Your task to perform on an android device: search for starred emails in the gmail app Image 0: 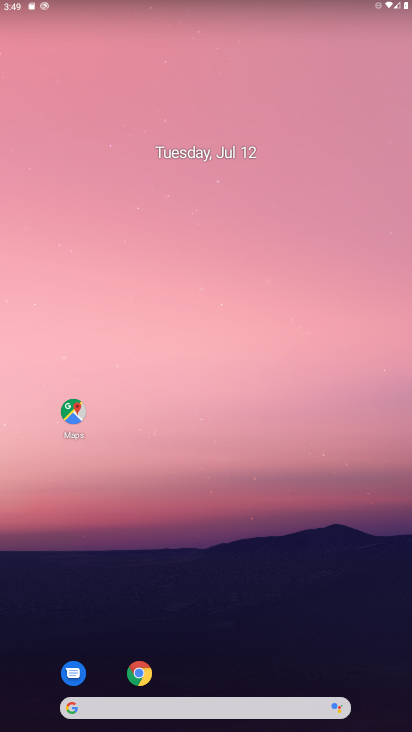
Step 0: drag from (172, 707) to (233, 56)
Your task to perform on an android device: search for starred emails in the gmail app Image 1: 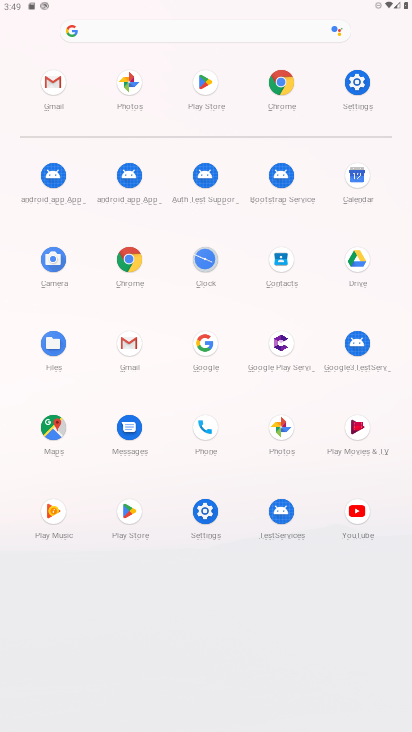
Step 1: click (128, 343)
Your task to perform on an android device: search for starred emails in the gmail app Image 2: 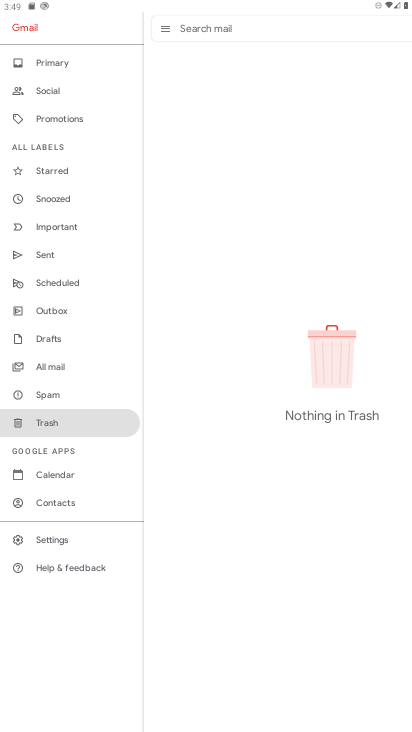
Step 2: click (53, 68)
Your task to perform on an android device: search for starred emails in the gmail app Image 3: 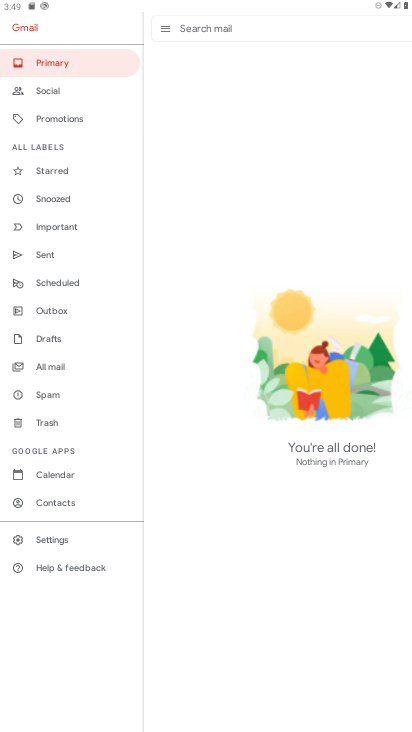
Step 3: click (52, 92)
Your task to perform on an android device: search for starred emails in the gmail app Image 4: 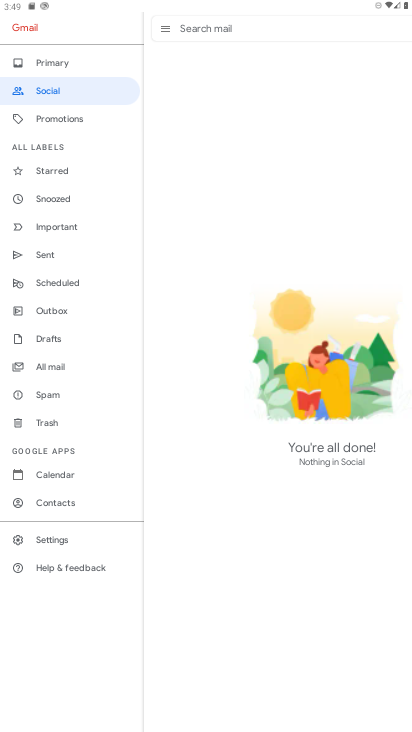
Step 4: click (60, 122)
Your task to perform on an android device: search for starred emails in the gmail app Image 5: 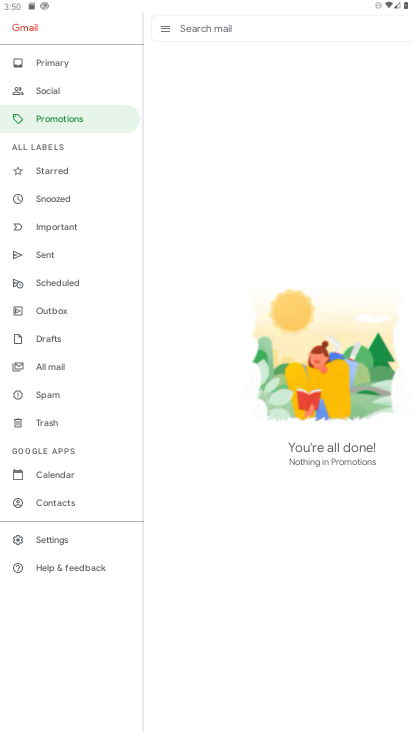
Step 5: click (46, 177)
Your task to perform on an android device: search for starred emails in the gmail app Image 6: 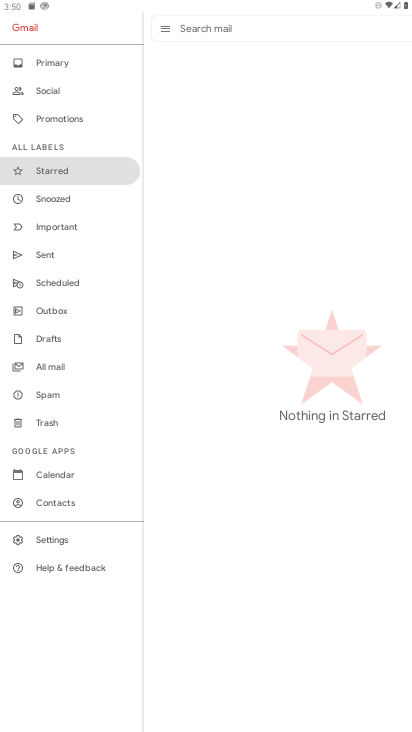
Step 6: click (49, 203)
Your task to perform on an android device: search for starred emails in the gmail app Image 7: 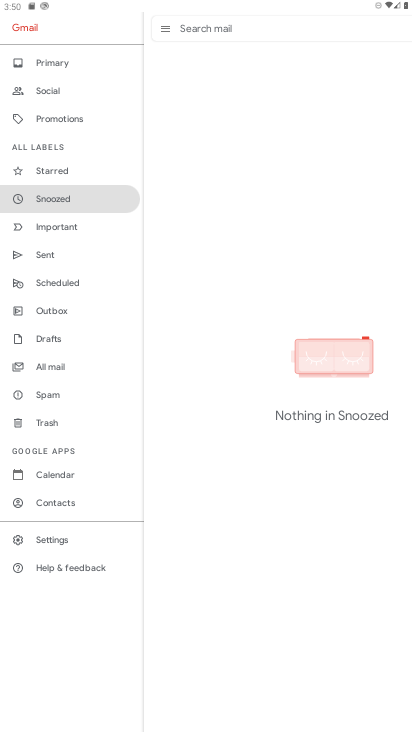
Step 7: click (67, 231)
Your task to perform on an android device: search for starred emails in the gmail app Image 8: 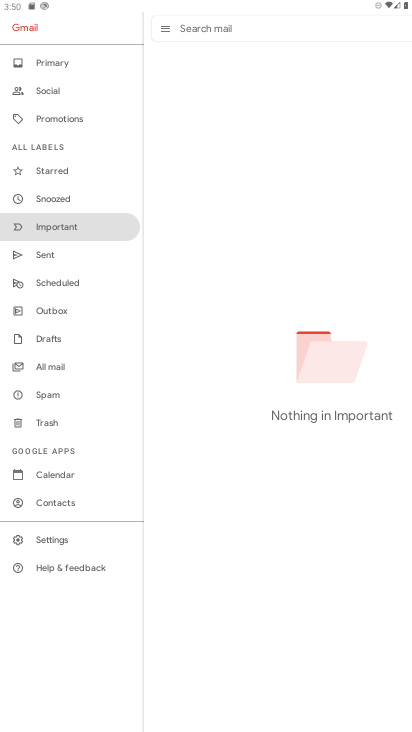
Step 8: click (45, 256)
Your task to perform on an android device: search for starred emails in the gmail app Image 9: 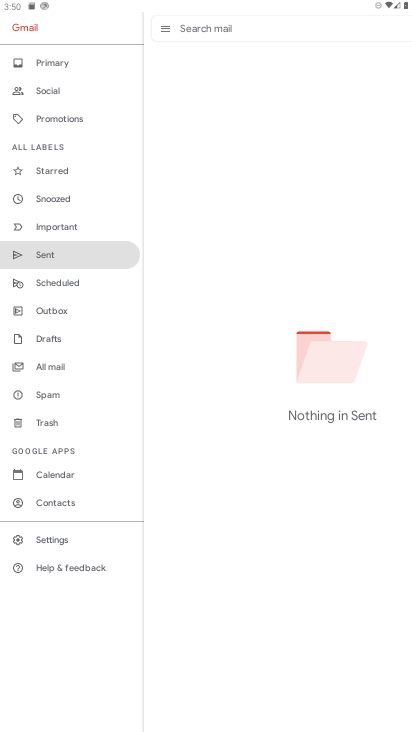
Step 9: click (50, 277)
Your task to perform on an android device: search for starred emails in the gmail app Image 10: 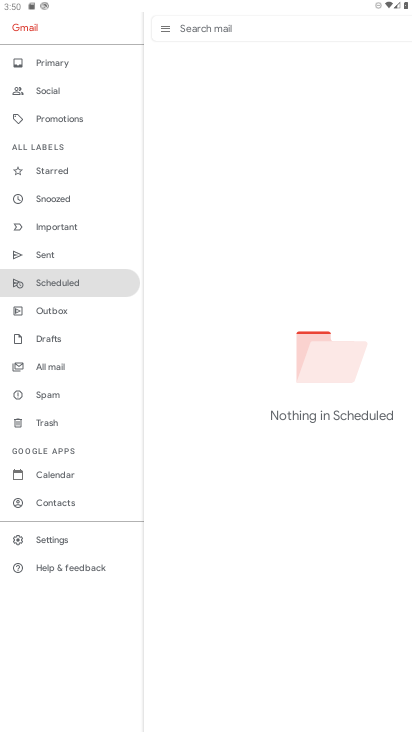
Step 10: click (44, 318)
Your task to perform on an android device: search for starred emails in the gmail app Image 11: 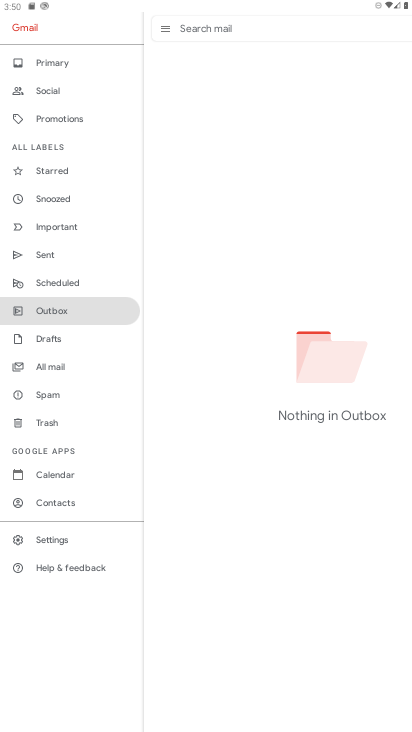
Step 11: task complete